Your task to perform on an android device: Open the phone app and click the voicemail tab. Image 0: 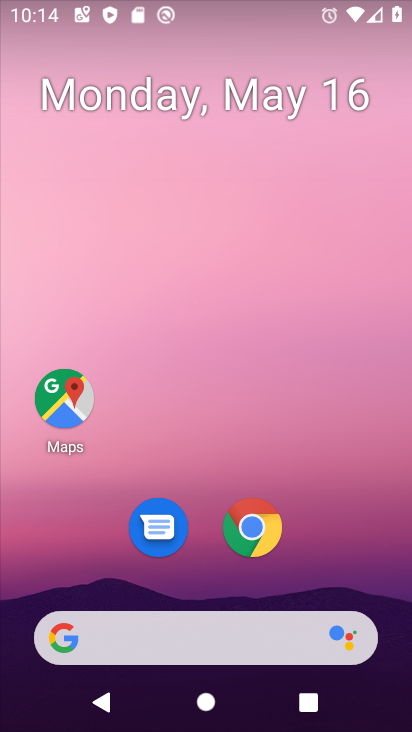
Step 0: drag from (353, 593) to (373, 34)
Your task to perform on an android device: Open the phone app and click the voicemail tab. Image 1: 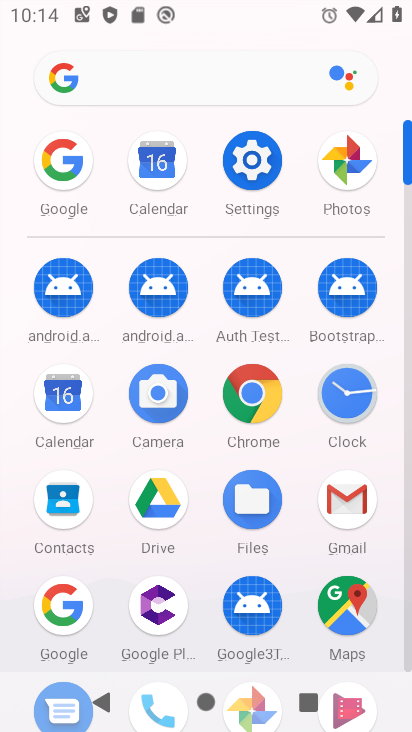
Step 1: drag from (411, 459) to (409, 416)
Your task to perform on an android device: Open the phone app and click the voicemail tab. Image 2: 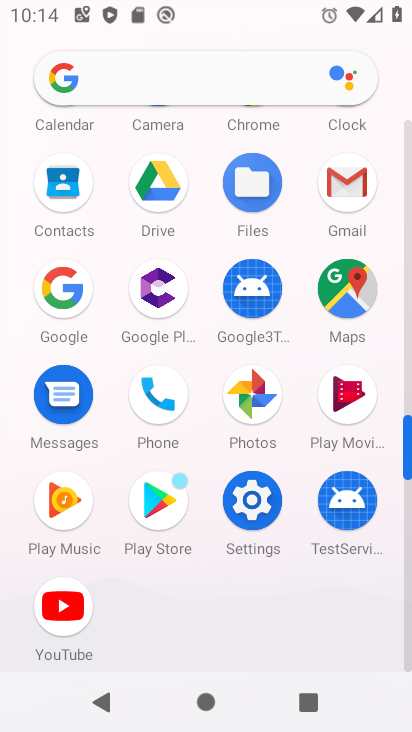
Step 2: click (157, 395)
Your task to perform on an android device: Open the phone app and click the voicemail tab. Image 3: 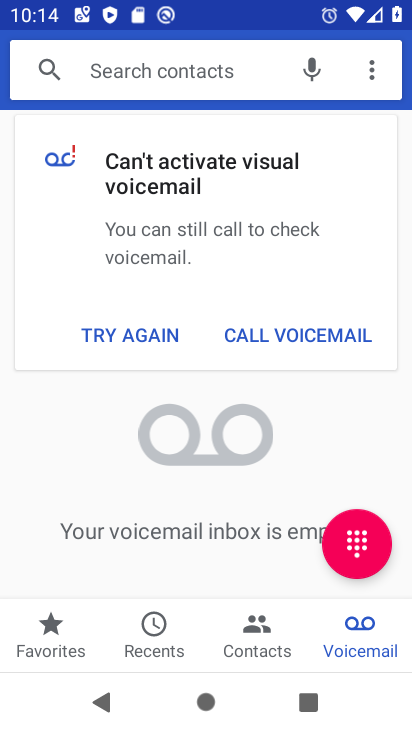
Step 3: click (353, 656)
Your task to perform on an android device: Open the phone app and click the voicemail tab. Image 4: 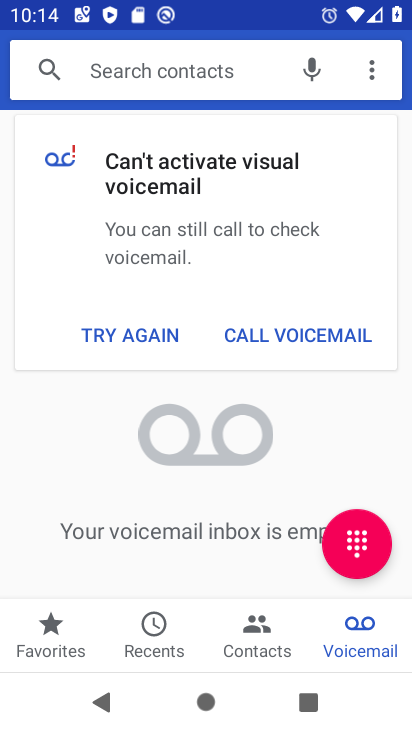
Step 4: task complete